Your task to perform on an android device: Open Yahoo.com Image 0: 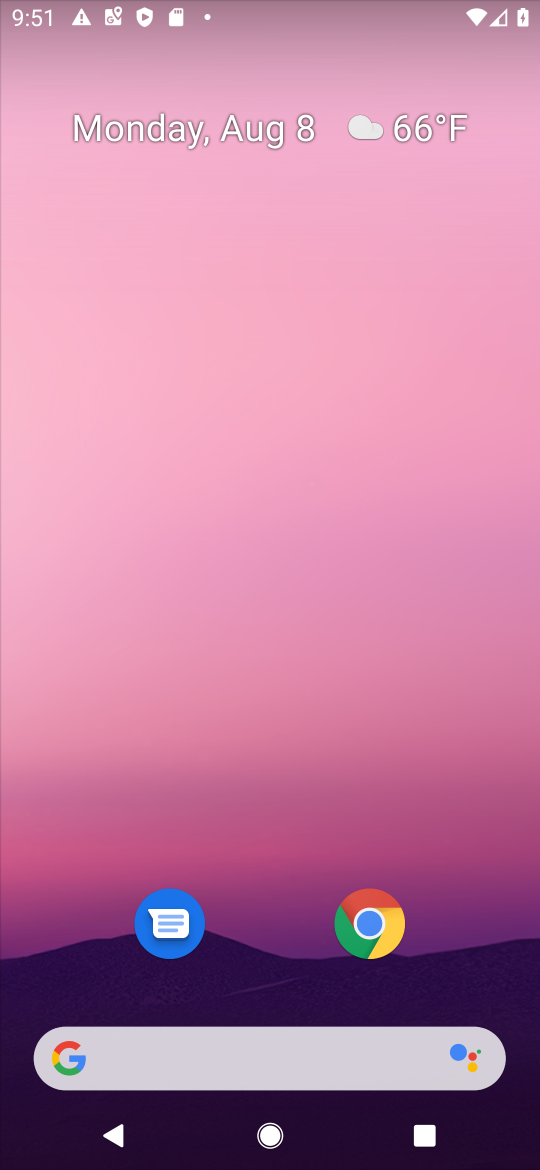
Step 0: click (190, 1039)
Your task to perform on an android device: Open Yahoo.com Image 1: 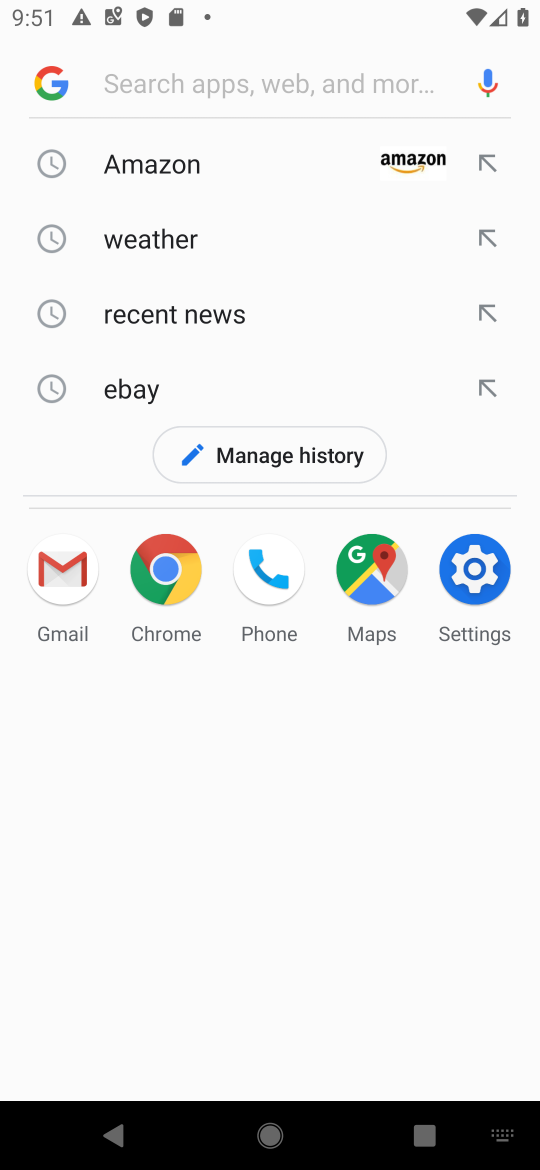
Step 1: type "Yahoo.com"
Your task to perform on an android device: Open Yahoo.com Image 2: 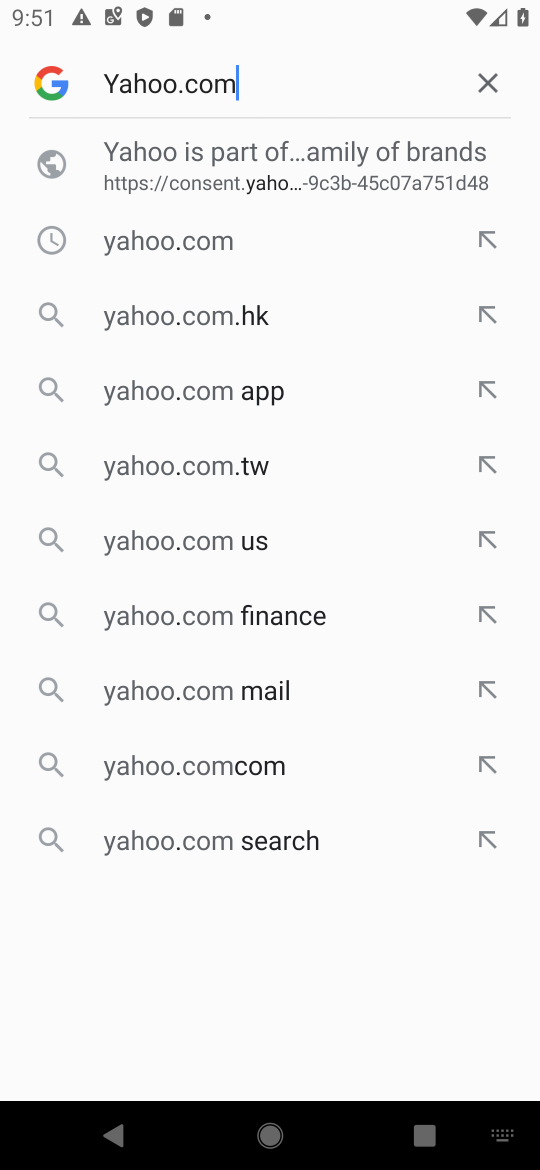
Step 2: click (174, 248)
Your task to perform on an android device: Open Yahoo.com Image 3: 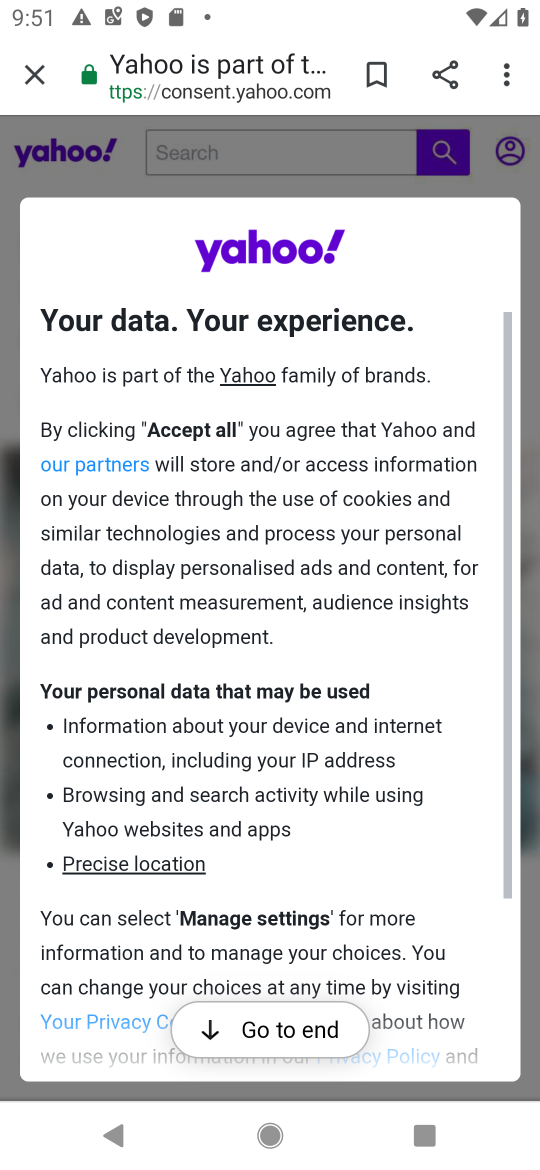
Step 3: task complete